Your task to perform on an android device: Open Amazon Image 0: 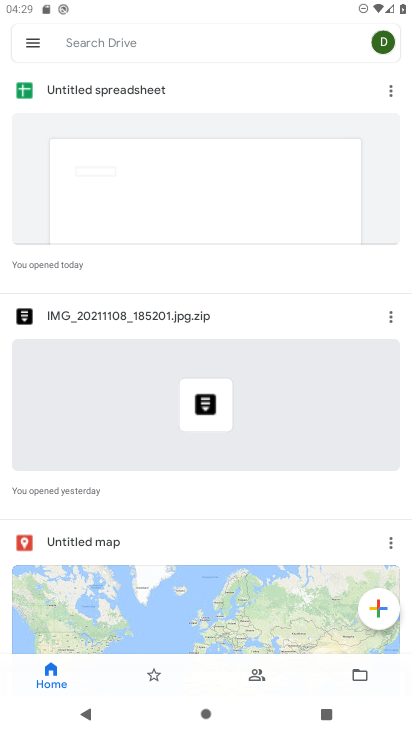
Step 0: press home button
Your task to perform on an android device: Open Amazon Image 1: 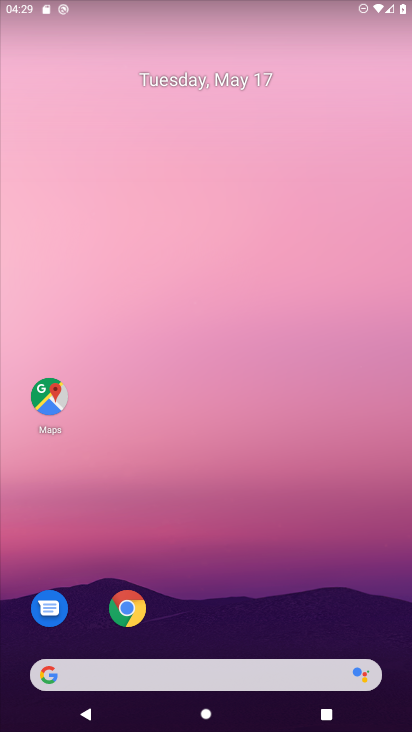
Step 1: drag from (142, 617) to (275, 129)
Your task to perform on an android device: Open Amazon Image 2: 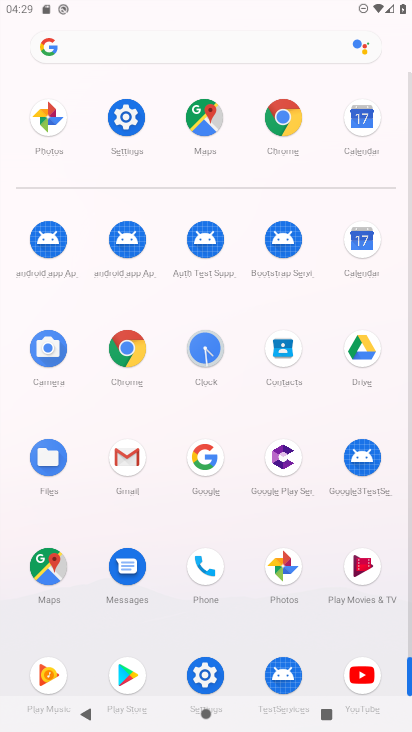
Step 2: click (207, 469)
Your task to perform on an android device: Open Amazon Image 3: 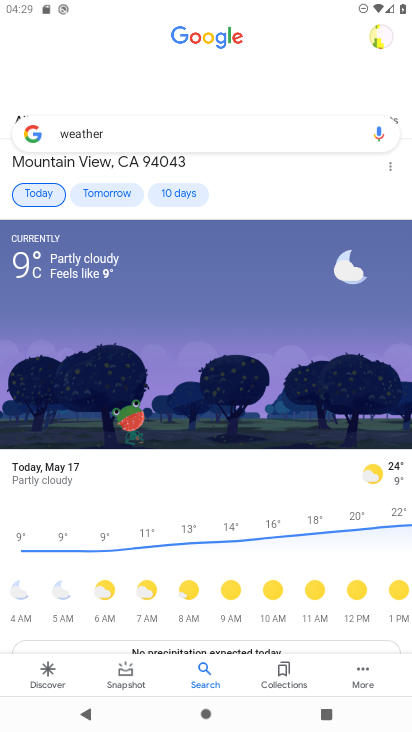
Step 3: click (319, 122)
Your task to perform on an android device: Open Amazon Image 4: 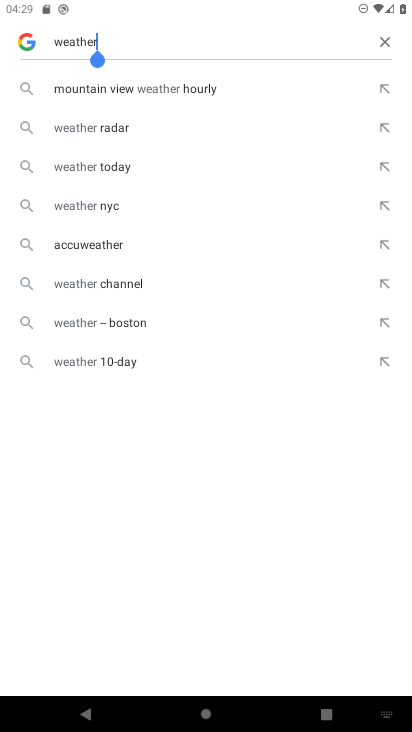
Step 4: click (381, 49)
Your task to perform on an android device: Open Amazon Image 5: 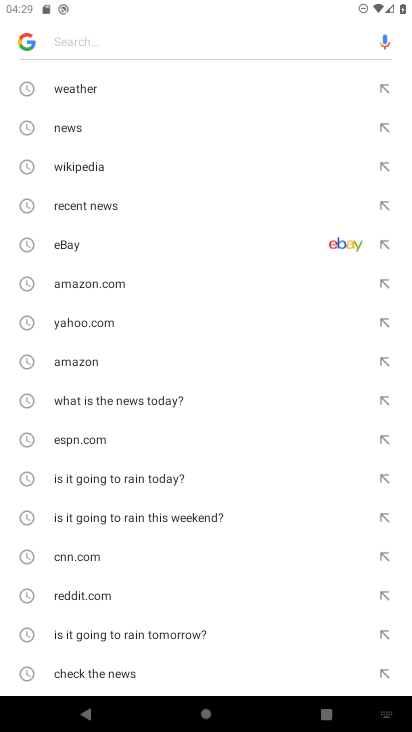
Step 5: click (79, 279)
Your task to perform on an android device: Open Amazon Image 6: 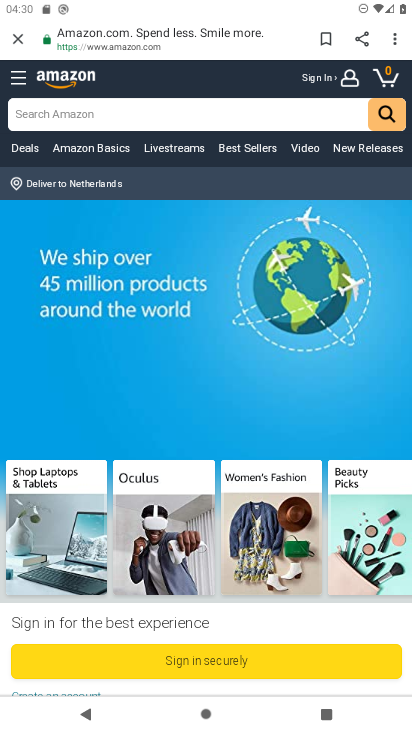
Step 6: task complete